Your task to perform on an android device: turn off location Image 0: 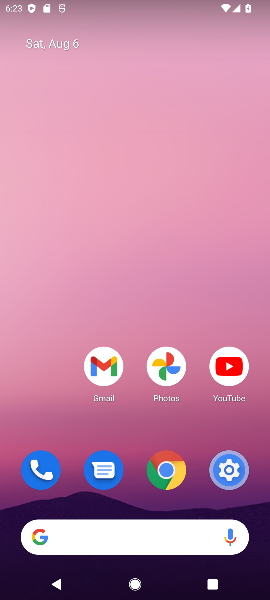
Step 0: press home button
Your task to perform on an android device: turn off location Image 1: 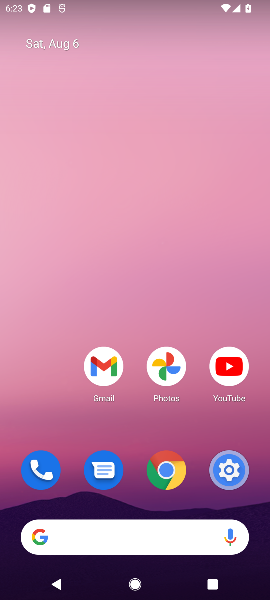
Step 1: press home button
Your task to perform on an android device: turn off location Image 2: 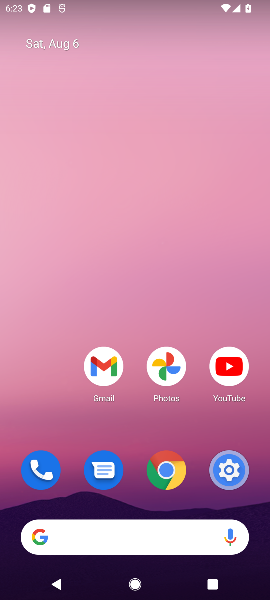
Step 2: press home button
Your task to perform on an android device: turn off location Image 3: 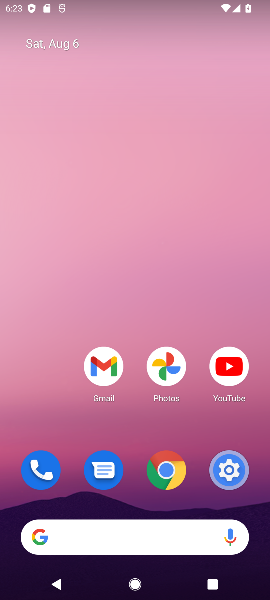
Step 3: drag from (138, 475) to (207, 122)
Your task to perform on an android device: turn off location Image 4: 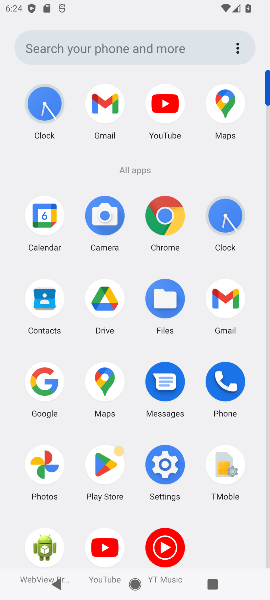
Step 4: click (153, 470)
Your task to perform on an android device: turn off location Image 5: 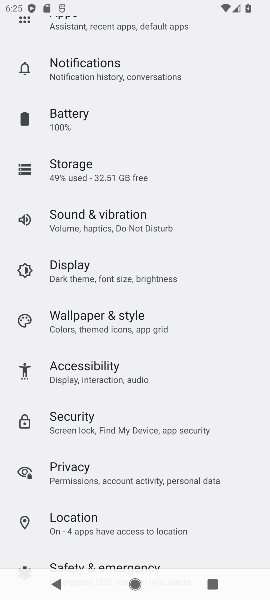
Step 5: drag from (83, 485) to (80, 205)
Your task to perform on an android device: turn off location Image 6: 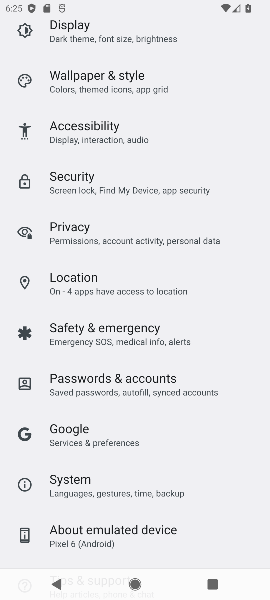
Step 6: click (100, 277)
Your task to perform on an android device: turn off location Image 7: 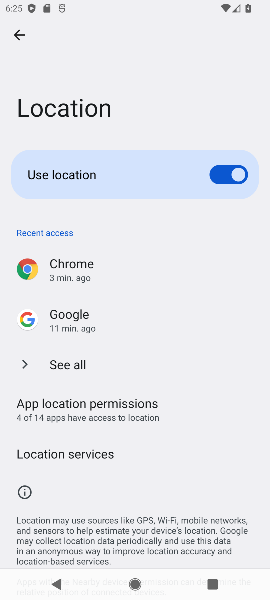
Step 7: task complete